Your task to perform on an android device: turn on priority inbox in the gmail app Image 0: 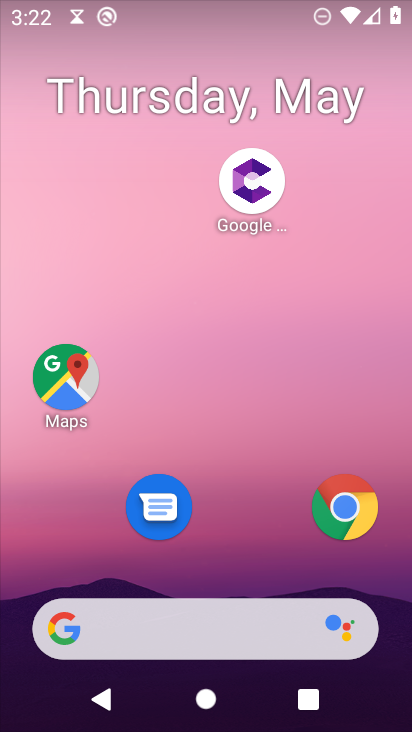
Step 0: press home button
Your task to perform on an android device: turn on priority inbox in the gmail app Image 1: 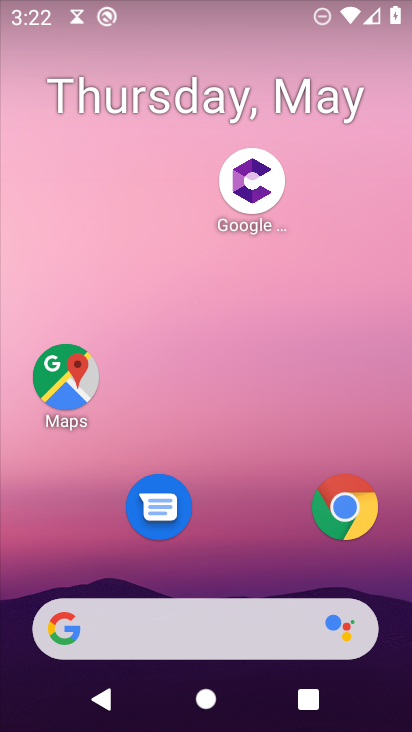
Step 1: drag from (233, 554) to (191, 188)
Your task to perform on an android device: turn on priority inbox in the gmail app Image 2: 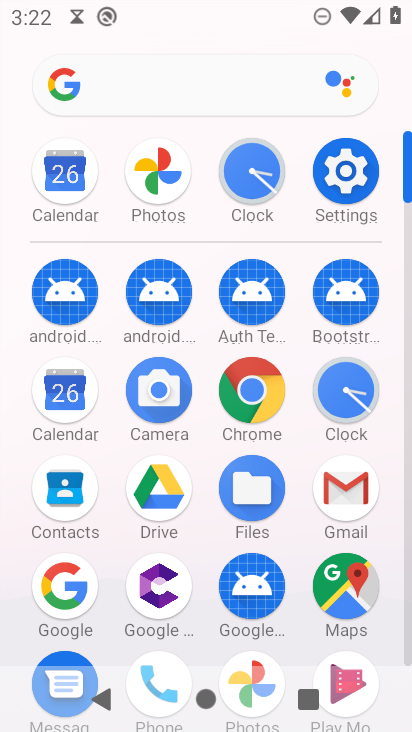
Step 2: click (343, 464)
Your task to perform on an android device: turn on priority inbox in the gmail app Image 3: 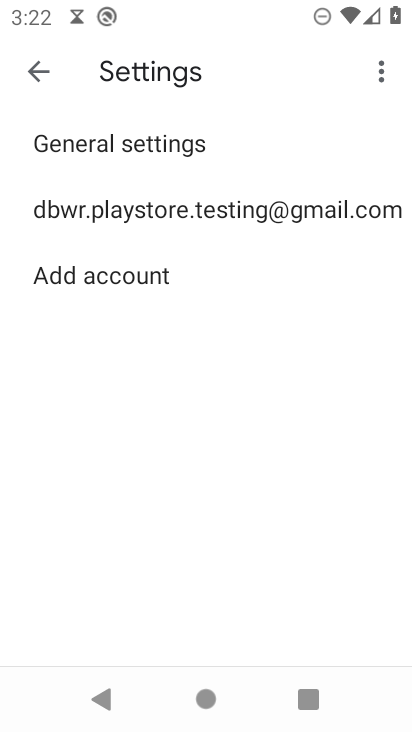
Step 3: click (156, 215)
Your task to perform on an android device: turn on priority inbox in the gmail app Image 4: 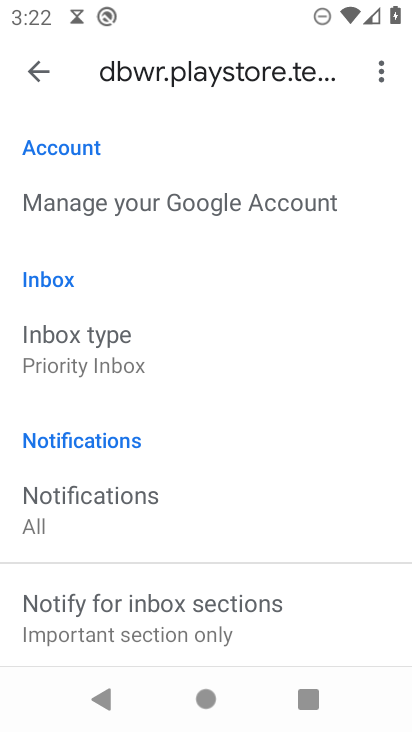
Step 4: click (81, 347)
Your task to perform on an android device: turn on priority inbox in the gmail app Image 5: 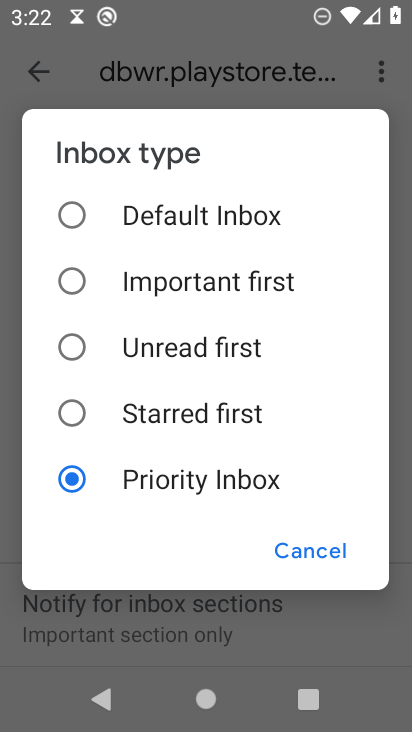
Step 5: task complete